Your task to perform on an android device: turn on the 24-hour format for clock Image 0: 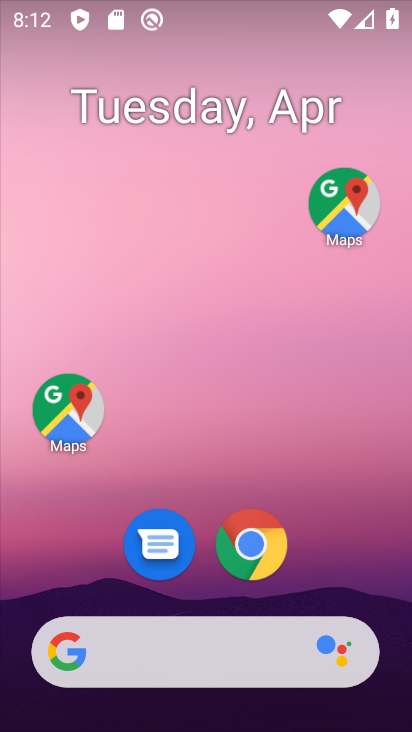
Step 0: drag from (175, 574) to (361, 85)
Your task to perform on an android device: turn on the 24-hour format for clock Image 1: 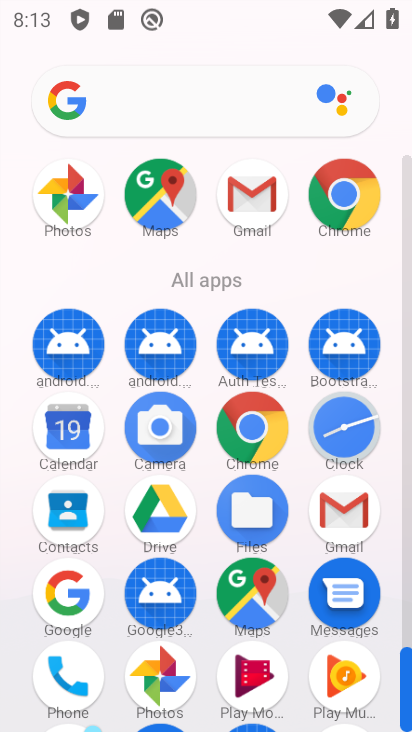
Step 1: click (348, 446)
Your task to perform on an android device: turn on the 24-hour format for clock Image 2: 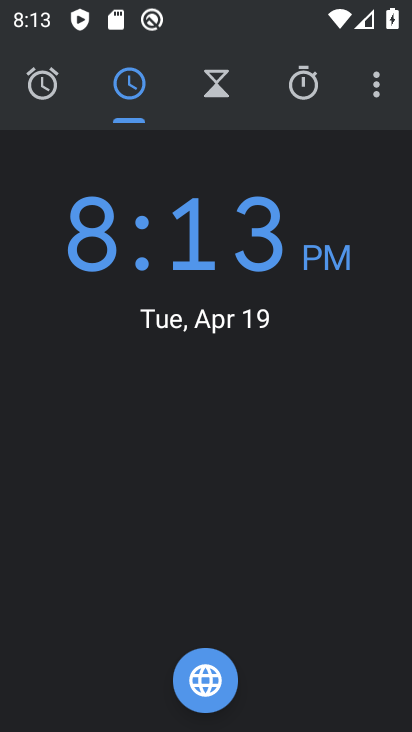
Step 2: click (375, 98)
Your task to perform on an android device: turn on the 24-hour format for clock Image 3: 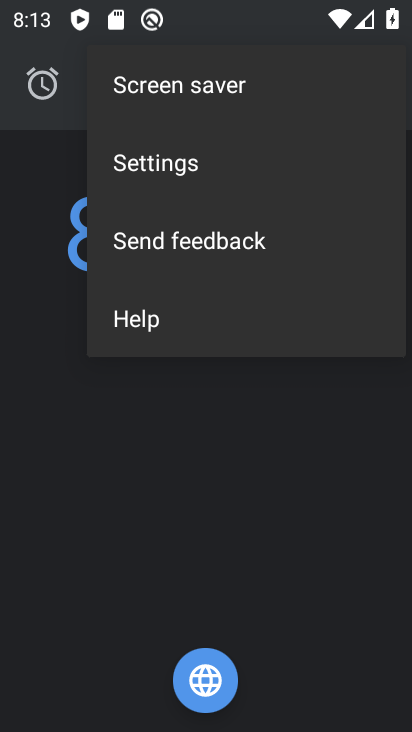
Step 3: click (148, 169)
Your task to perform on an android device: turn on the 24-hour format for clock Image 4: 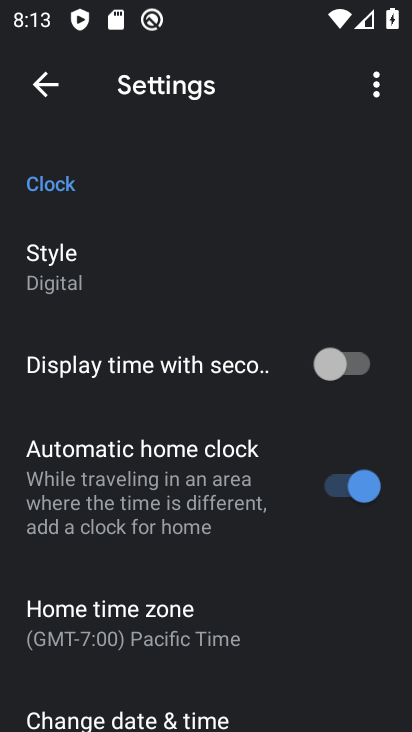
Step 4: drag from (191, 614) to (346, 179)
Your task to perform on an android device: turn on the 24-hour format for clock Image 5: 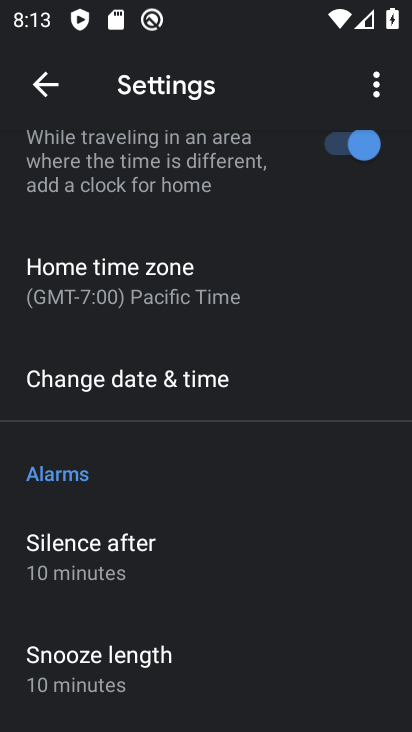
Step 5: click (182, 375)
Your task to perform on an android device: turn on the 24-hour format for clock Image 6: 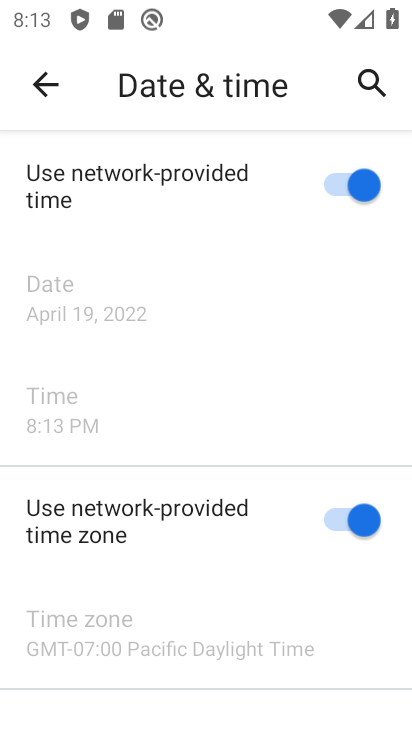
Step 6: drag from (187, 587) to (280, 246)
Your task to perform on an android device: turn on the 24-hour format for clock Image 7: 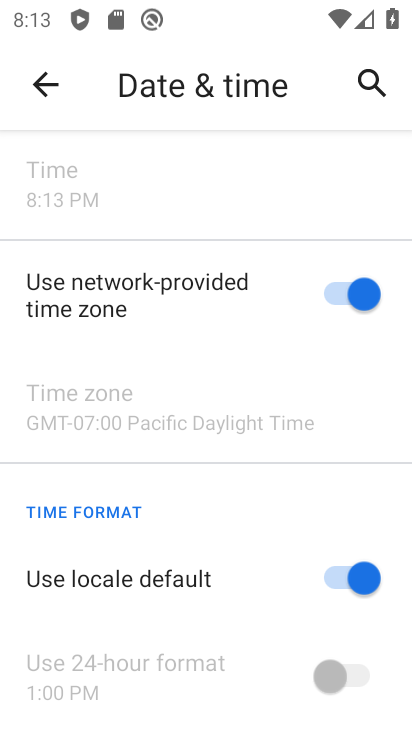
Step 7: drag from (247, 522) to (317, 195)
Your task to perform on an android device: turn on the 24-hour format for clock Image 8: 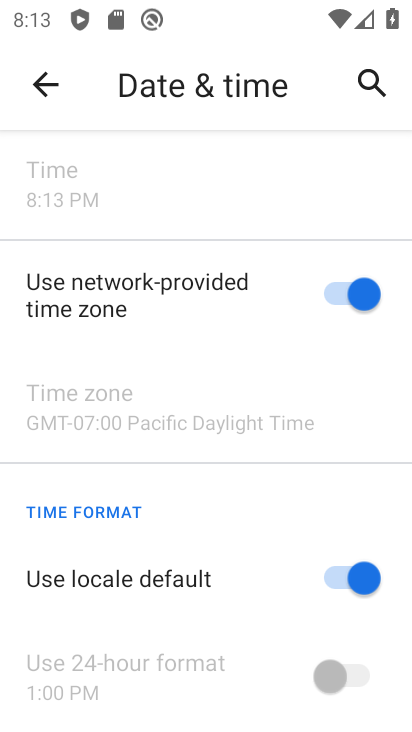
Step 8: click (336, 575)
Your task to perform on an android device: turn on the 24-hour format for clock Image 9: 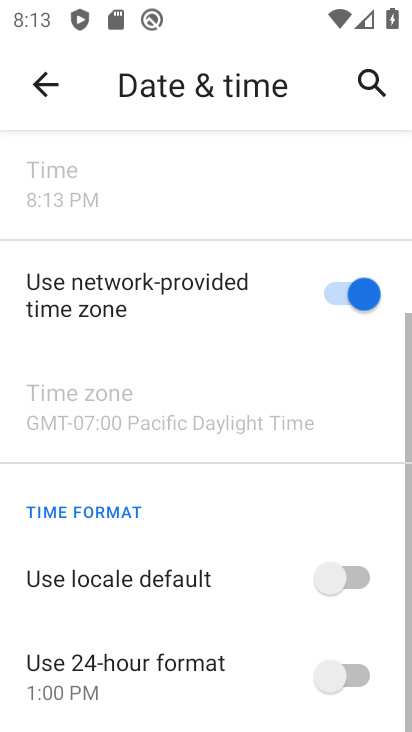
Step 9: click (355, 674)
Your task to perform on an android device: turn on the 24-hour format for clock Image 10: 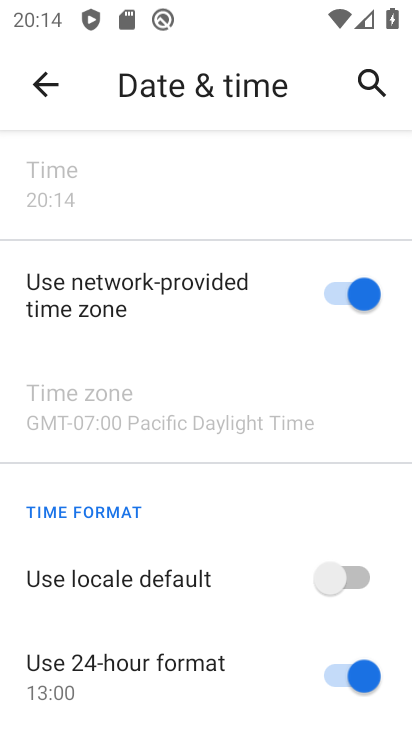
Step 10: task complete